Your task to perform on an android device: open the mobile data screen to see how much data has been used Image 0: 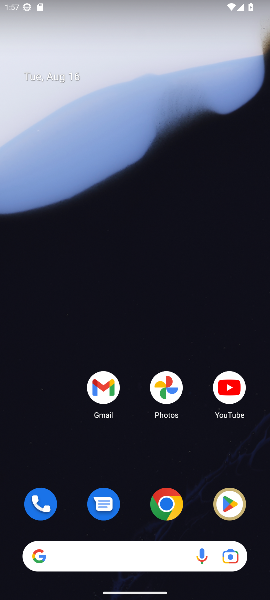
Step 0: drag from (136, 505) to (116, 140)
Your task to perform on an android device: open the mobile data screen to see how much data has been used Image 1: 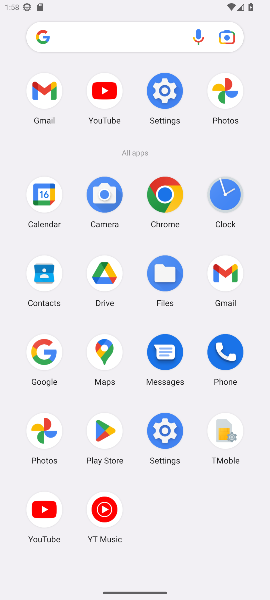
Step 1: click (164, 93)
Your task to perform on an android device: open the mobile data screen to see how much data has been used Image 2: 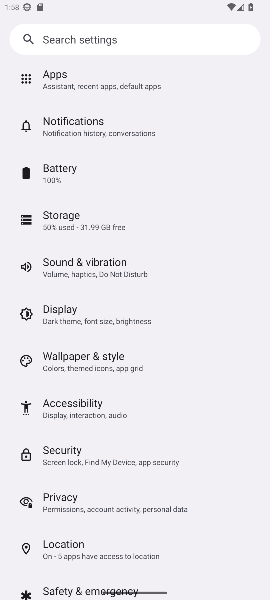
Step 2: drag from (188, 146) to (234, 585)
Your task to perform on an android device: open the mobile data screen to see how much data has been used Image 3: 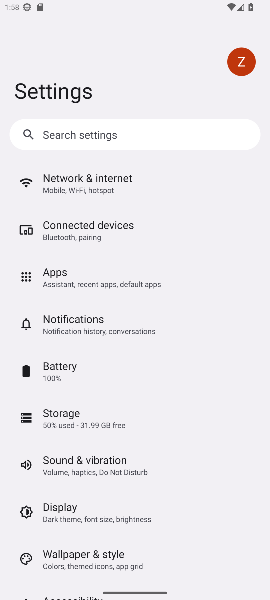
Step 3: click (83, 173)
Your task to perform on an android device: open the mobile data screen to see how much data has been used Image 4: 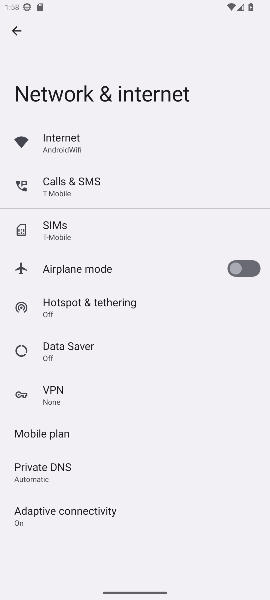
Step 4: click (57, 139)
Your task to perform on an android device: open the mobile data screen to see how much data has been used Image 5: 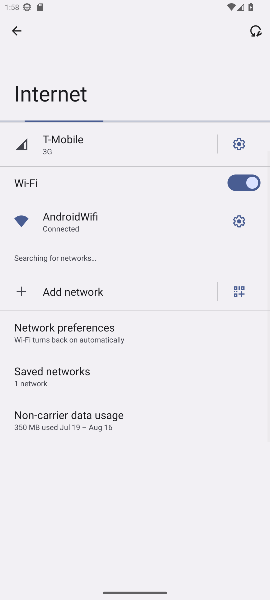
Step 5: click (75, 413)
Your task to perform on an android device: open the mobile data screen to see how much data has been used Image 6: 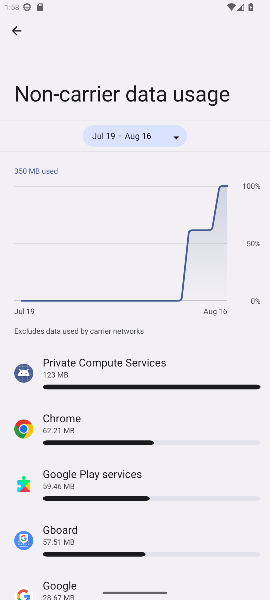
Step 6: task complete